Your task to perform on an android device: turn on wifi Image 0: 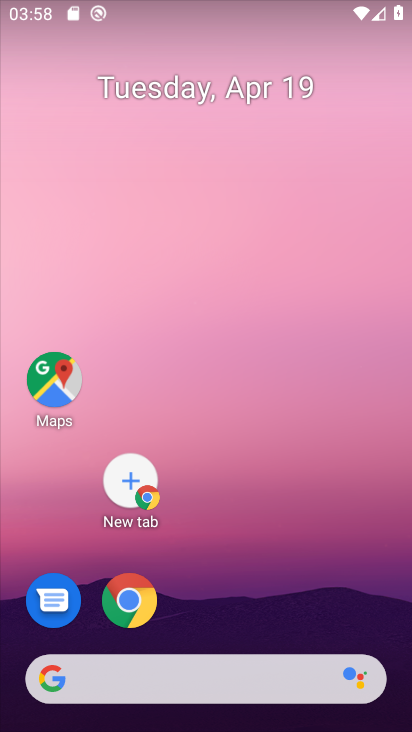
Step 0: drag from (241, 10) to (234, 499)
Your task to perform on an android device: turn on wifi Image 1: 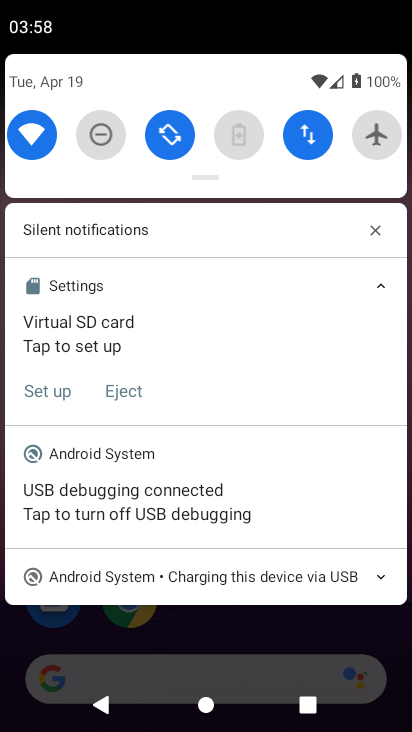
Step 1: task complete